Your task to perform on an android device: toggle pop-ups in chrome Image 0: 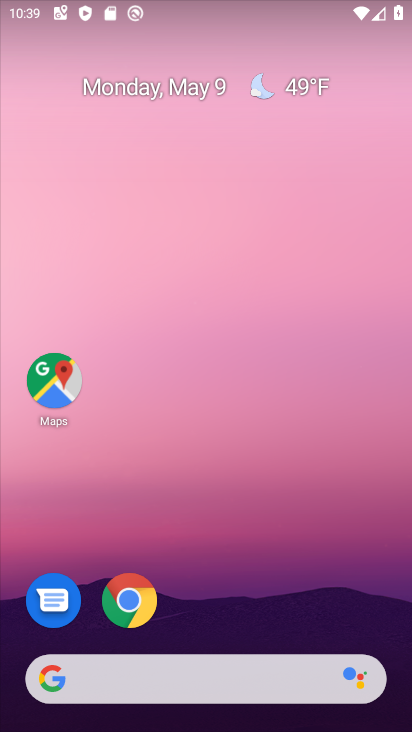
Step 0: drag from (377, 584) to (282, 119)
Your task to perform on an android device: toggle pop-ups in chrome Image 1: 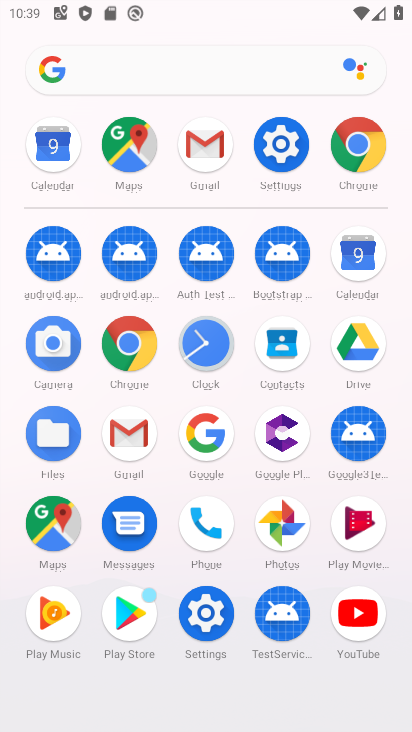
Step 1: click (139, 351)
Your task to perform on an android device: toggle pop-ups in chrome Image 2: 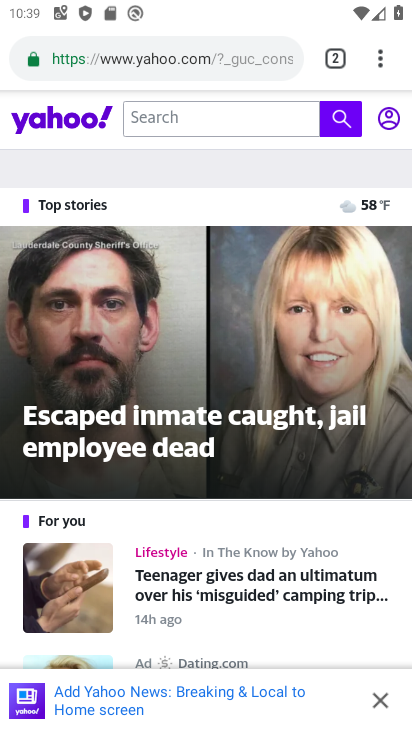
Step 2: drag from (378, 60) to (273, 633)
Your task to perform on an android device: toggle pop-ups in chrome Image 3: 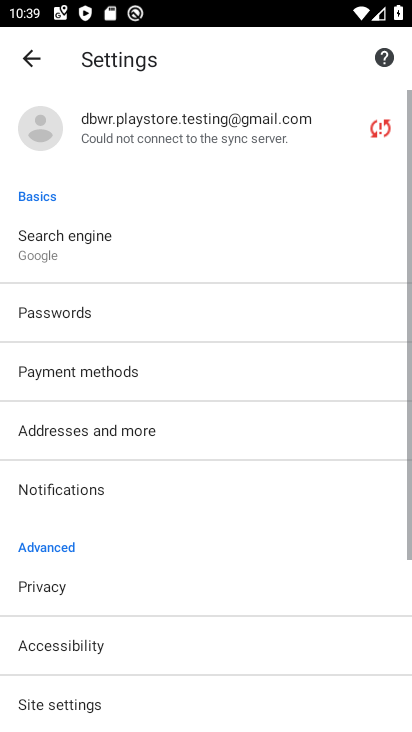
Step 3: drag from (268, 638) to (274, 286)
Your task to perform on an android device: toggle pop-ups in chrome Image 4: 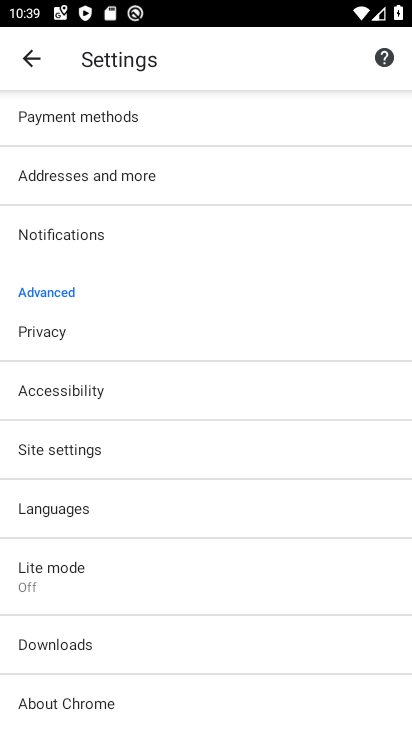
Step 4: click (156, 454)
Your task to perform on an android device: toggle pop-ups in chrome Image 5: 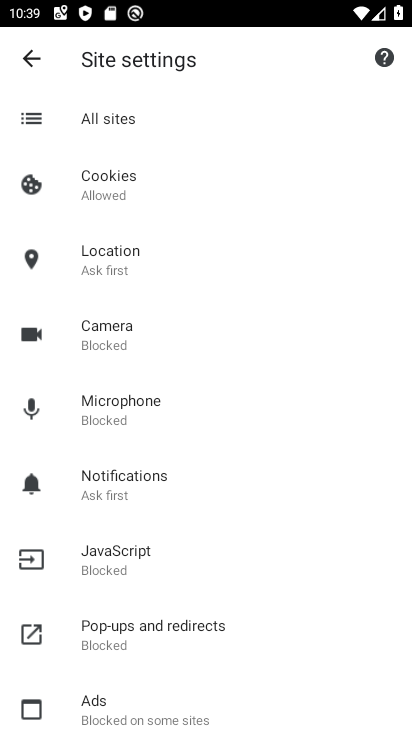
Step 5: click (194, 634)
Your task to perform on an android device: toggle pop-ups in chrome Image 6: 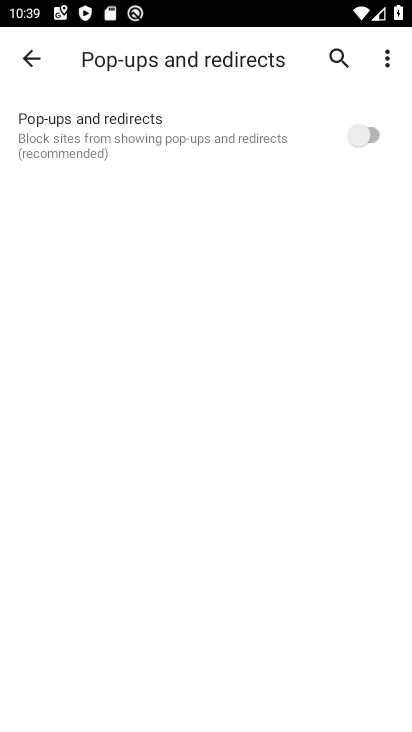
Step 6: click (369, 127)
Your task to perform on an android device: toggle pop-ups in chrome Image 7: 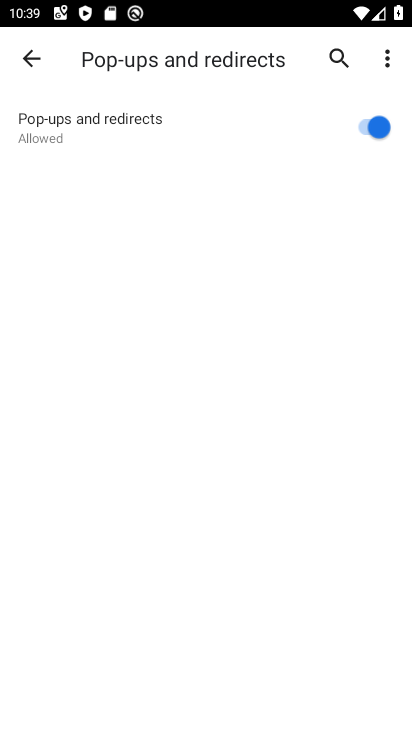
Step 7: task complete